Your task to perform on an android device: Open the Play Movies app and select the watchlist tab. Image 0: 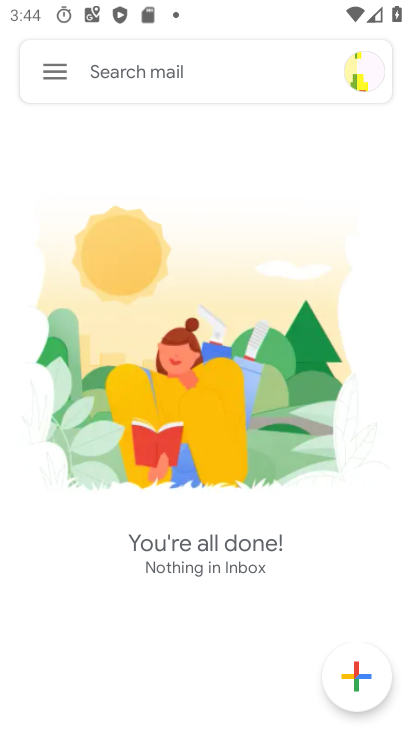
Step 0: press home button
Your task to perform on an android device: Open the Play Movies app and select the watchlist tab. Image 1: 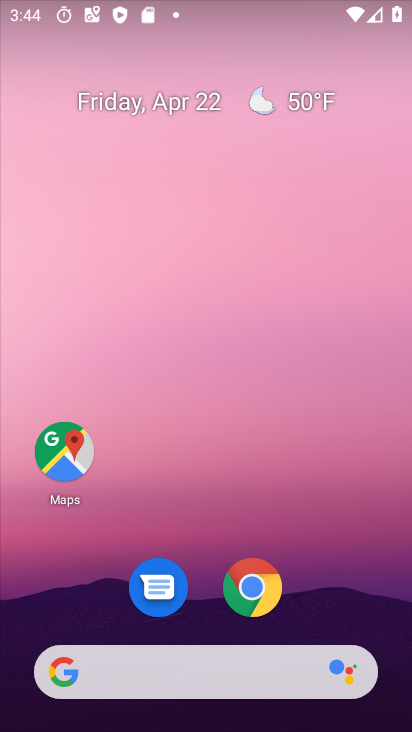
Step 1: drag from (341, 594) to (356, 4)
Your task to perform on an android device: Open the Play Movies app and select the watchlist tab. Image 2: 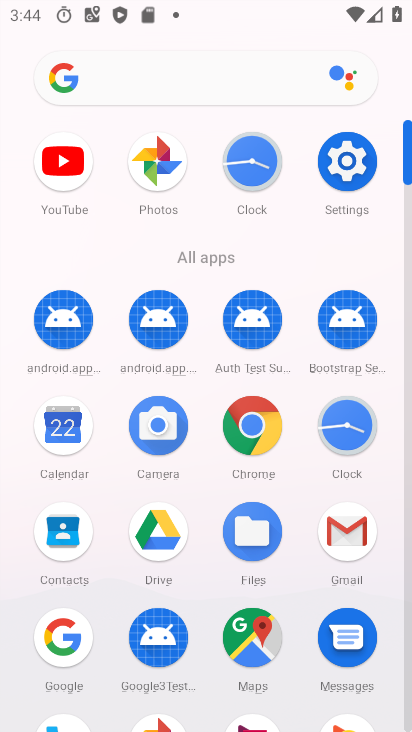
Step 2: click (405, 532)
Your task to perform on an android device: Open the Play Movies app and select the watchlist tab. Image 3: 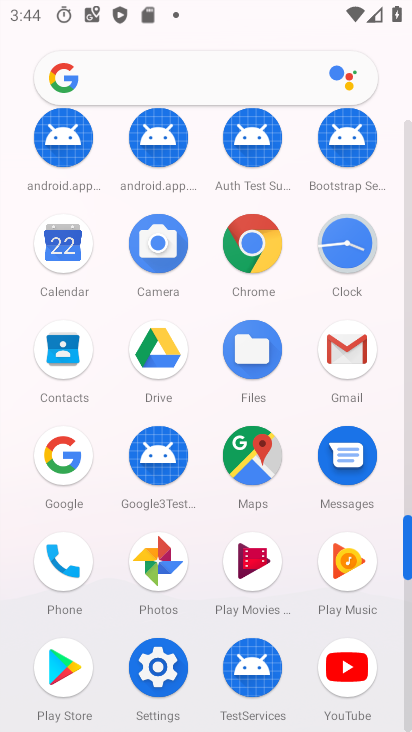
Step 3: click (255, 574)
Your task to perform on an android device: Open the Play Movies app and select the watchlist tab. Image 4: 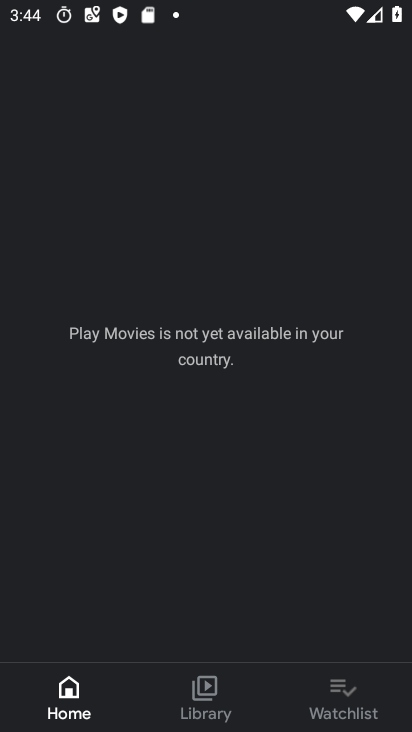
Step 4: click (336, 713)
Your task to perform on an android device: Open the Play Movies app and select the watchlist tab. Image 5: 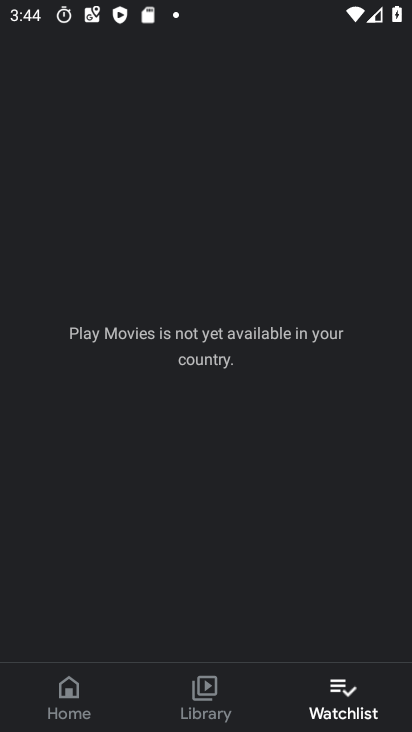
Step 5: task complete